Your task to perform on an android device: Search for Mexican restaurants on Maps Image 0: 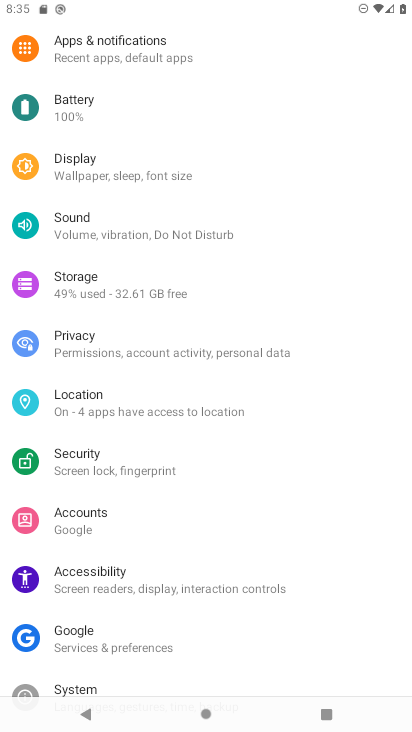
Step 0: press home button
Your task to perform on an android device: Search for Mexican restaurants on Maps Image 1: 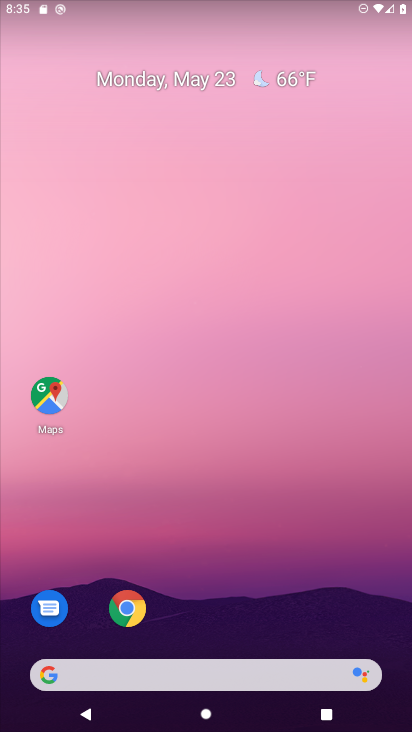
Step 1: drag from (218, 729) to (170, 164)
Your task to perform on an android device: Search for Mexican restaurants on Maps Image 2: 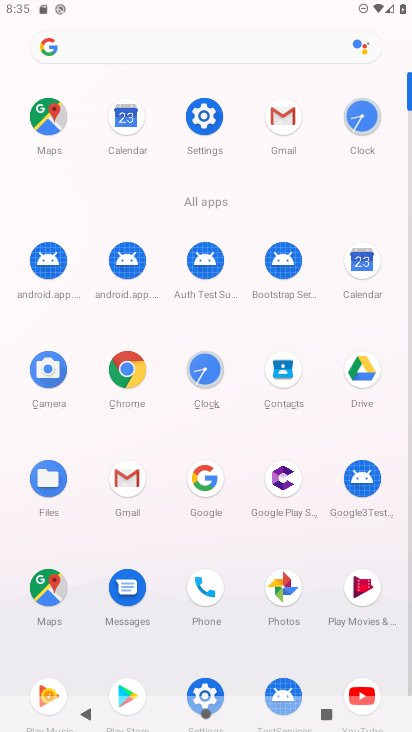
Step 2: click (46, 586)
Your task to perform on an android device: Search for Mexican restaurants on Maps Image 3: 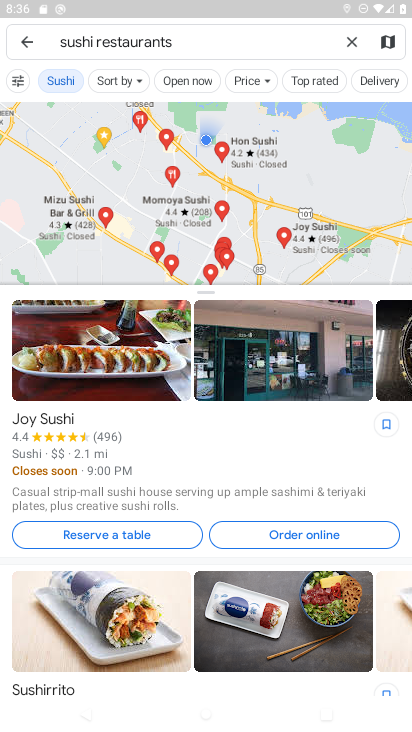
Step 3: click (349, 43)
Your task to perform on an android device: Search for Mexican restaurants on Maps Image 4: 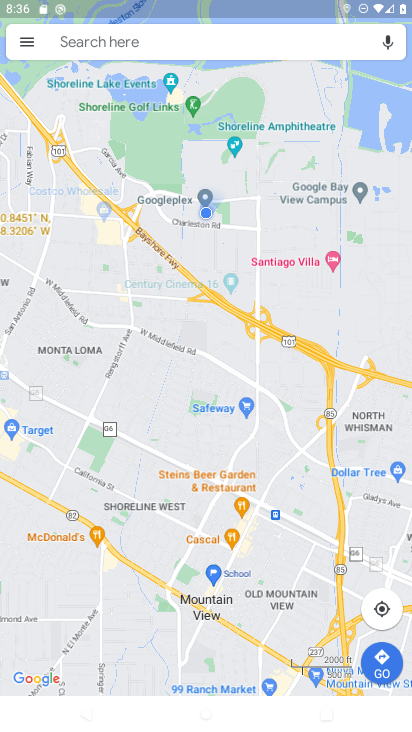
Step 4: click (238, 42)
Your task to perform on an android device: Search for Mexican restaurants on Maps Image 5: 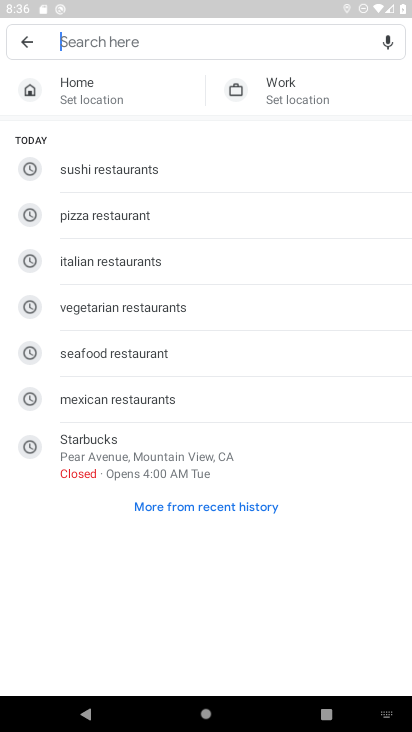
Step 5: type "Mexican restaurants"
Your task to perform on an android device: Search for Mexican restaurants on Maps Image 6: 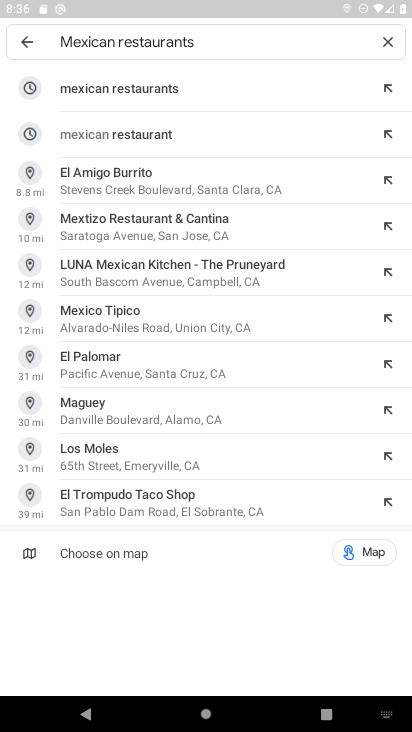
Step 6: click (113, 90)
Your task to perform on an android device: Search for Mexican restaurants on Maps Image 7: 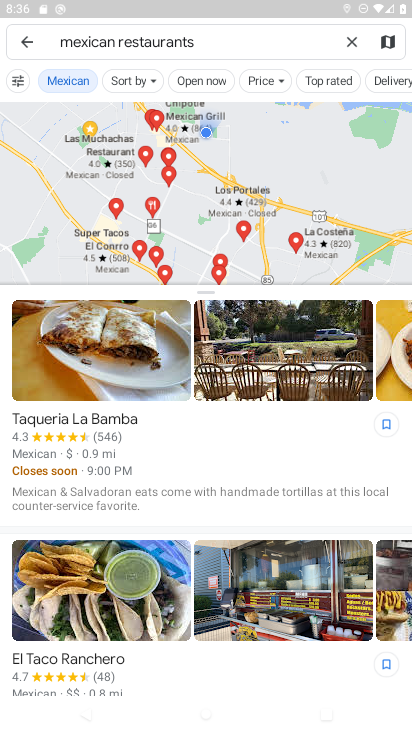
Step 7: task complete